Your task to perform on an android device: Open sound settings Image 0: 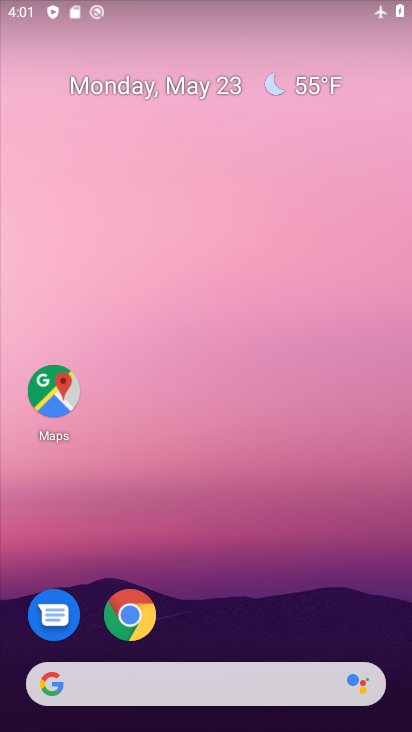
Step 0: drag from (380, 630) to (389, 236)
Your task to perform on an android device: Open sound settings Image 1: 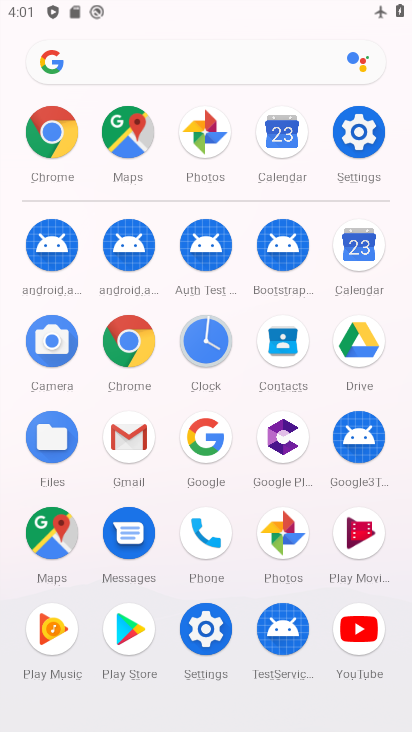
Step 1: click (217, 636)
Your task to perform on an android device: Open sound settings Image 2: 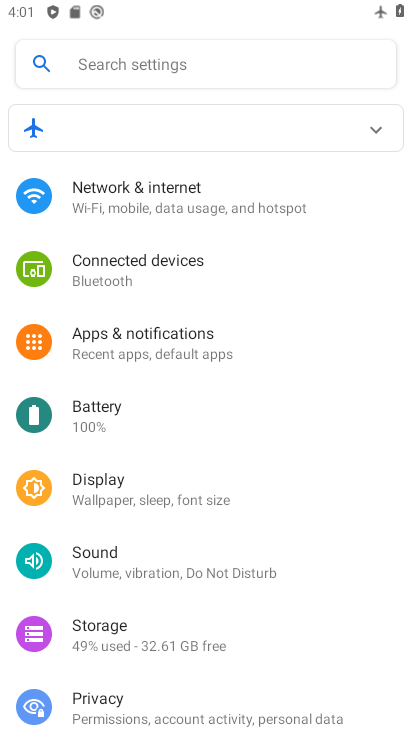
Step 2: drag from (335, 626) to (346, 474)
Your task to perform on an android device: Open sound settings Image 3: 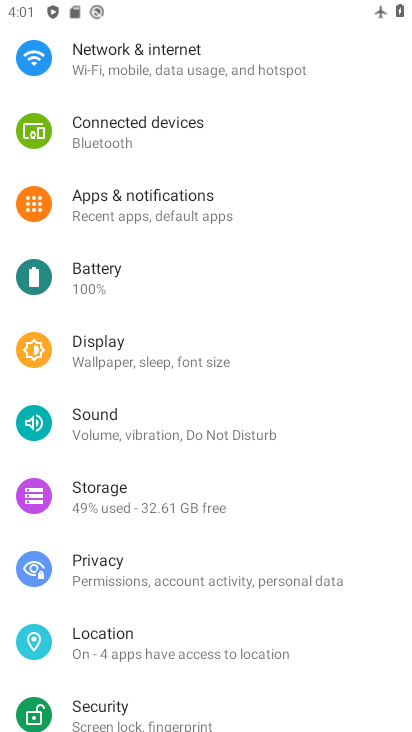
Step 3: drag from (347, 627) to (350, 521)
Your task to perform on an android device: Open sound settings Image 4: 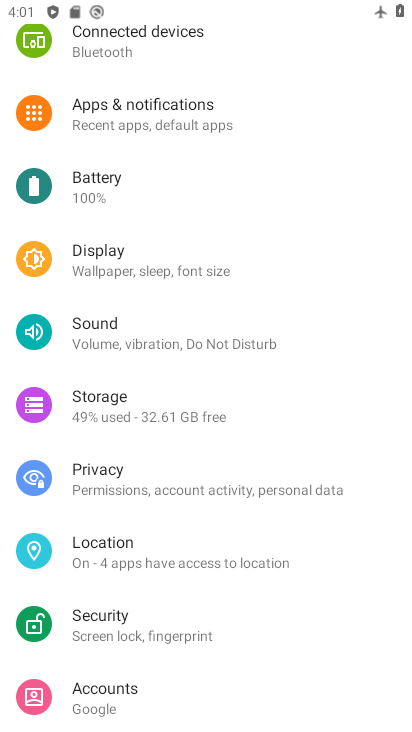
Step 4: drag from (327, 651) to (341, 546)
Your task to perform on an android device: Open sound settings Image 5: 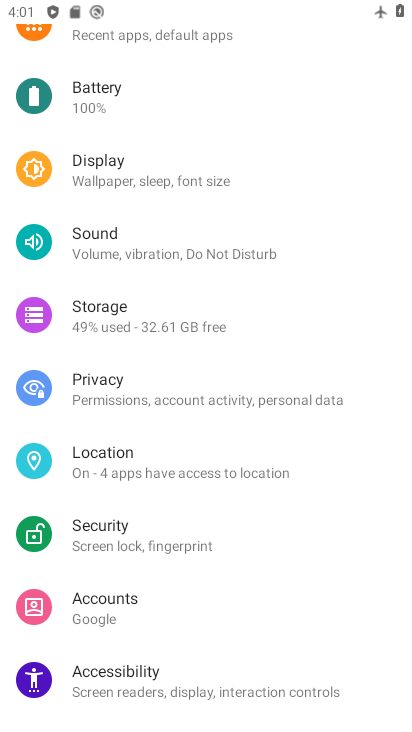
Step 5: drag from (341, 648) to (351, 556)
Your task to perform on an android device: Open sound settings Image 6: 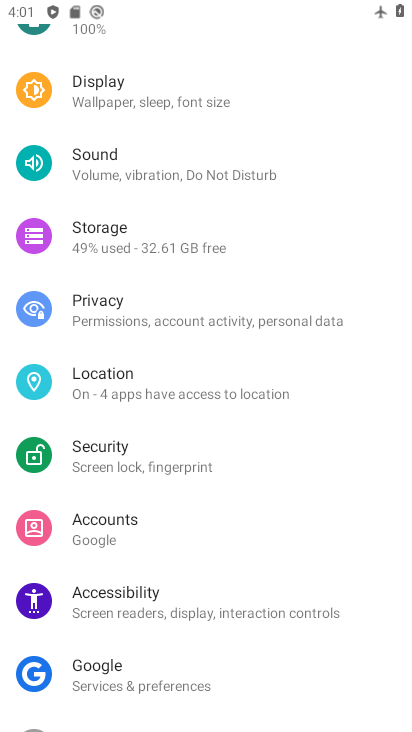
Step 6: drag from (340, 668) to (348, 551)
Your task to perform on an android device: Open sound settings Image 7: 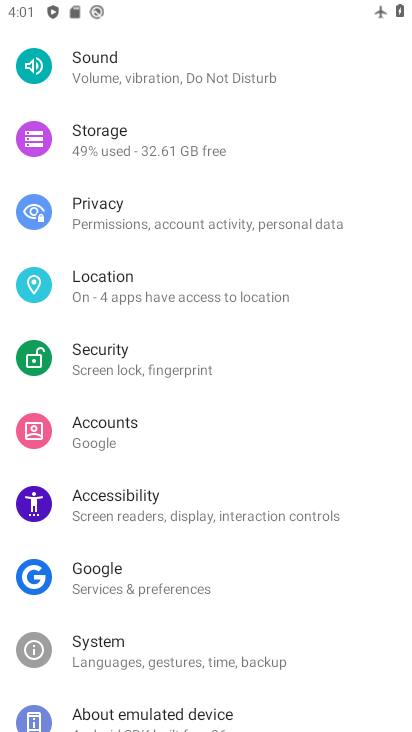
Step 7: drag from (337, 685) to (336, 569)
Your task to perform on an android device: Open sound settings Image 8: 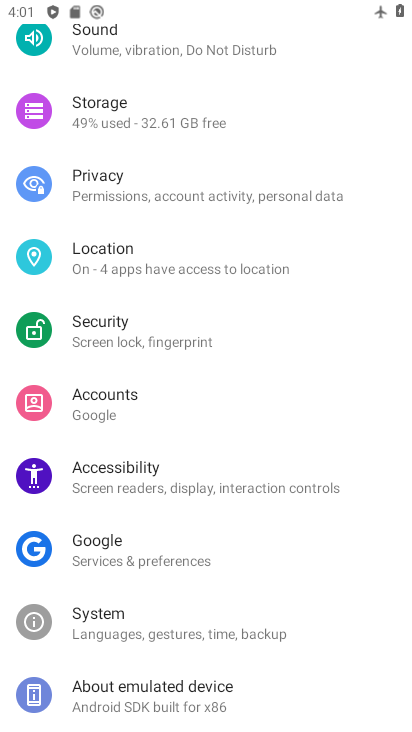
Step 8: drag from (364, 401) to (354, 487)
Your task to perform on an android device: Open sound settings Image 9: 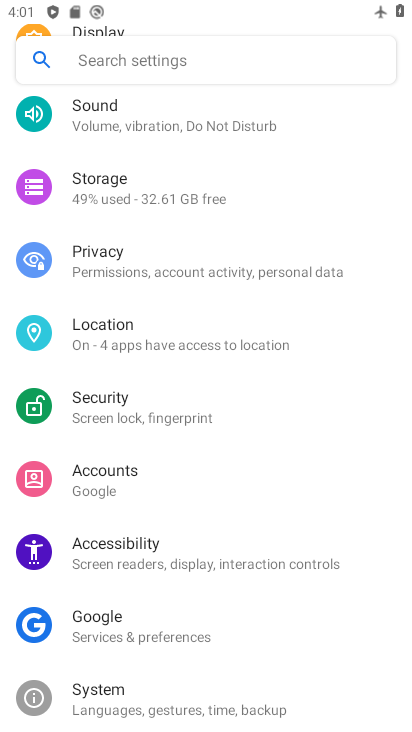
Step 9: drag from (353, 389) to (345, 500)
Your task to perform on an android device: Open sound settings Image 10: 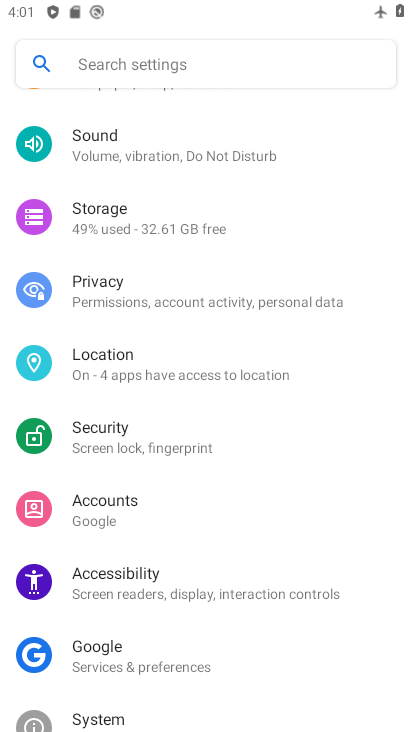
Step 10: drag from (344, 364) to (336, 499)
Your task to perform on an android device: Open sound settings Image 11: 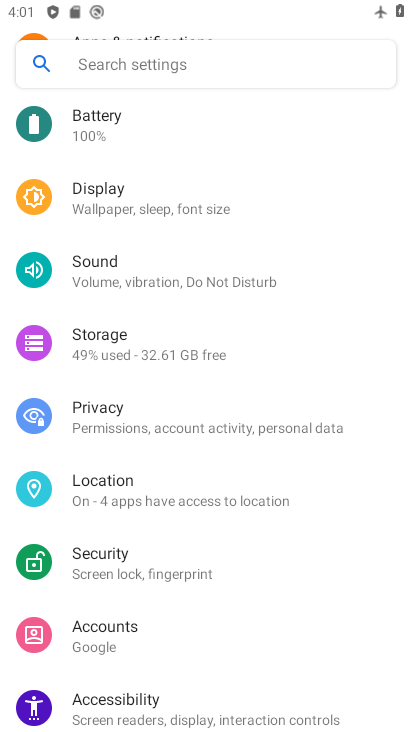
Step 11: drag from (344, 320) to (341, 468)
Your task to perform on an android device: Open sound settings Image 12: 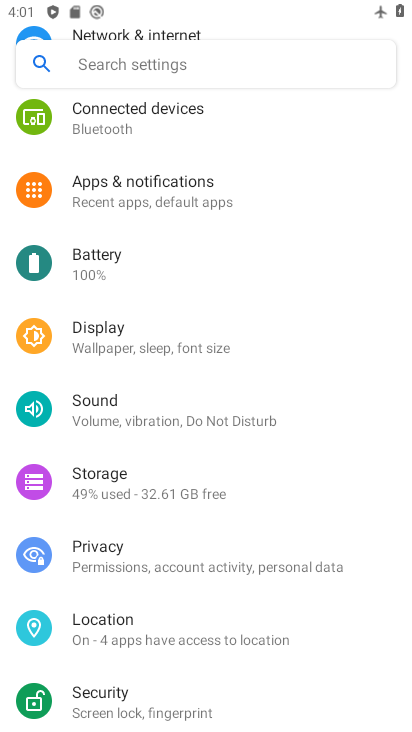
Step 12: drag from (330, 310) to (330, 408)
Your task to perform on an android device: Open sound settings Image 13: 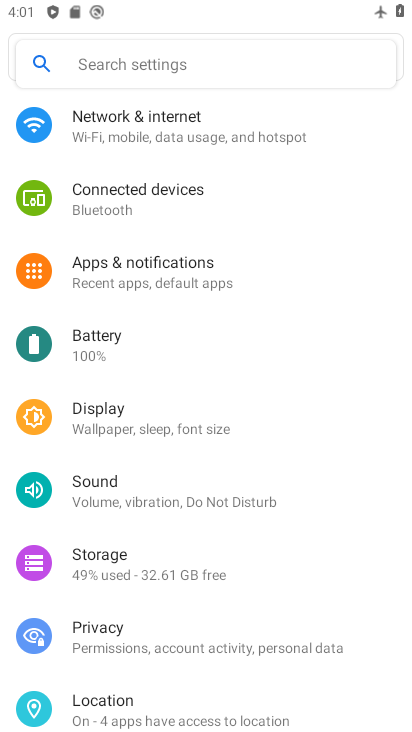
Step 13: drag from (328, 269) to (314, 473)
Your task to perform on an android device: Open sound settings Image 14: 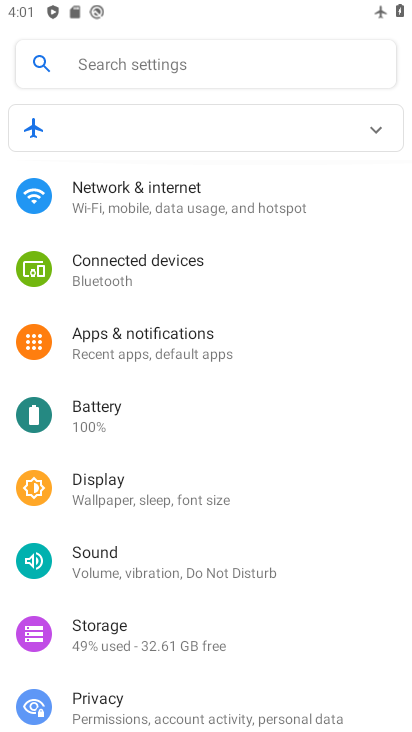
Step 14: drag from (320, 518) to (325, 373)
Your task to perform on an android device: Open sound settings Image 15: 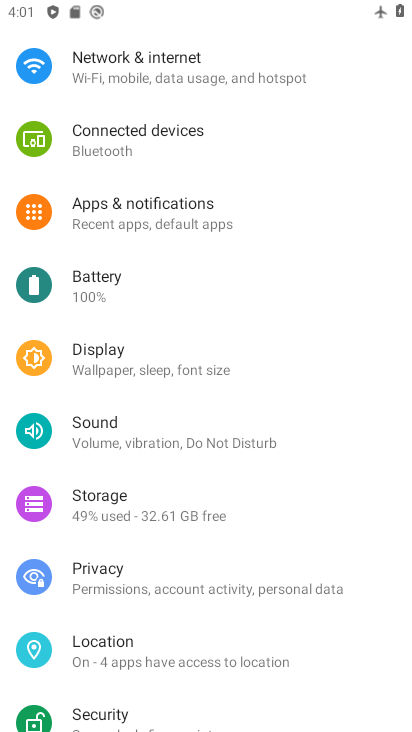
Step 15: drag from (298, 576) to (304, 429)
Your task to perform on an android device: Open sound settings Image 16: 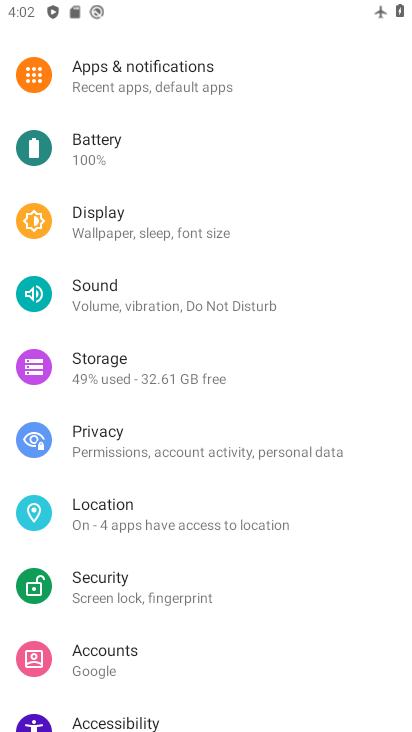
Step 16: drag from (303, 575) to (304, 471)
Your task to perform on an android device: Open sound settings Image 17: 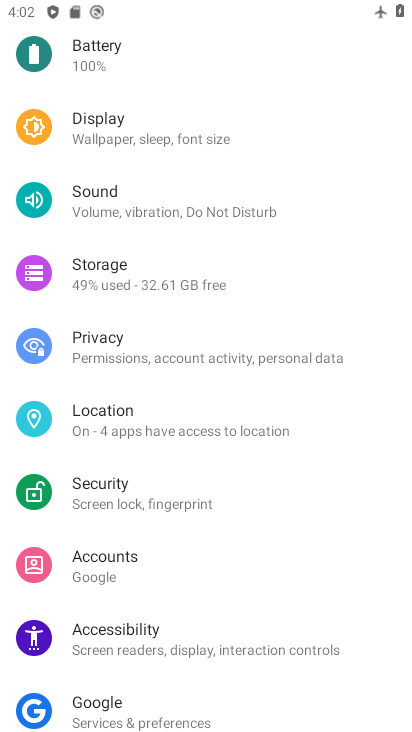
Step 17: click (256, 213)
Your task to perform on an android device: Open sound settings Image 18: 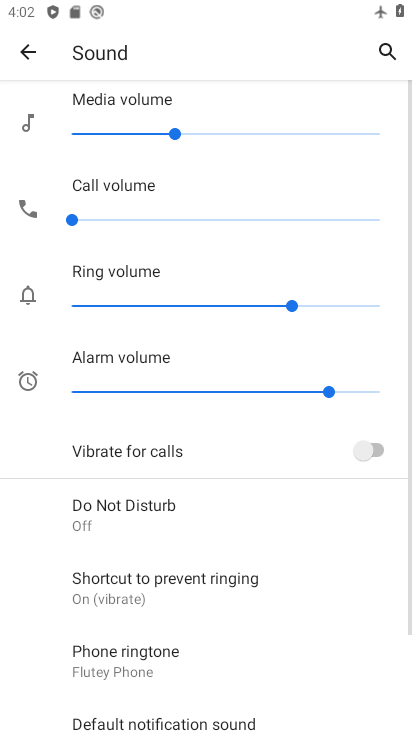
Step 18: task complete